Your task to perform on an android device: open device folders in google photos Image 0: 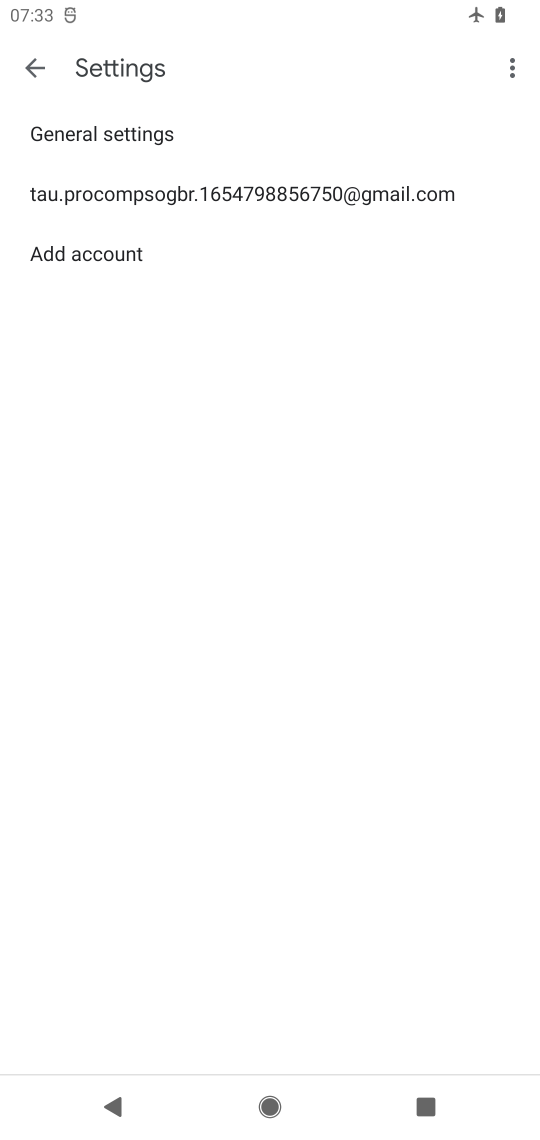
Step 0: press home button
Your task to perform on an android device: open device folders in google photos Image 1: 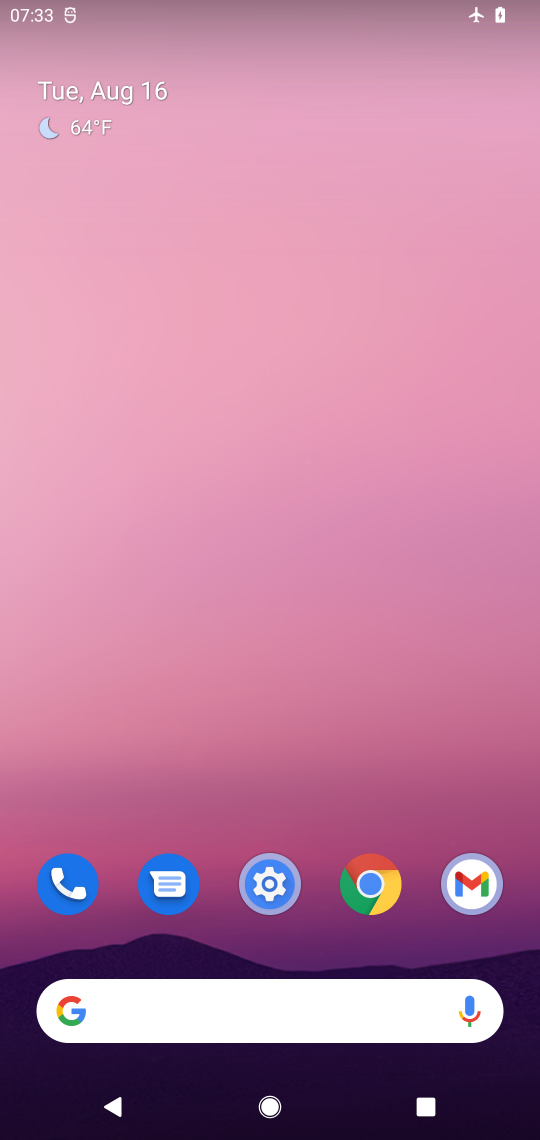
Step 1: drag from (314, 790) to (375, 29)
Your task to perform on an android device: open device folders in google photos Image 2: 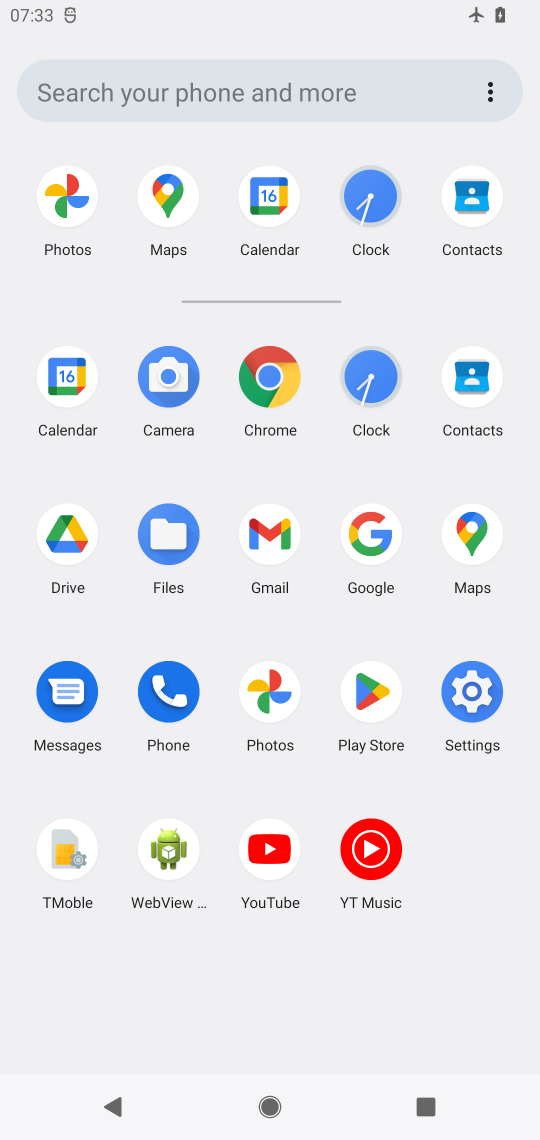
Step 2: click (266, 681)
Your task to perform on an android device: open device folders in google photos Image 3: 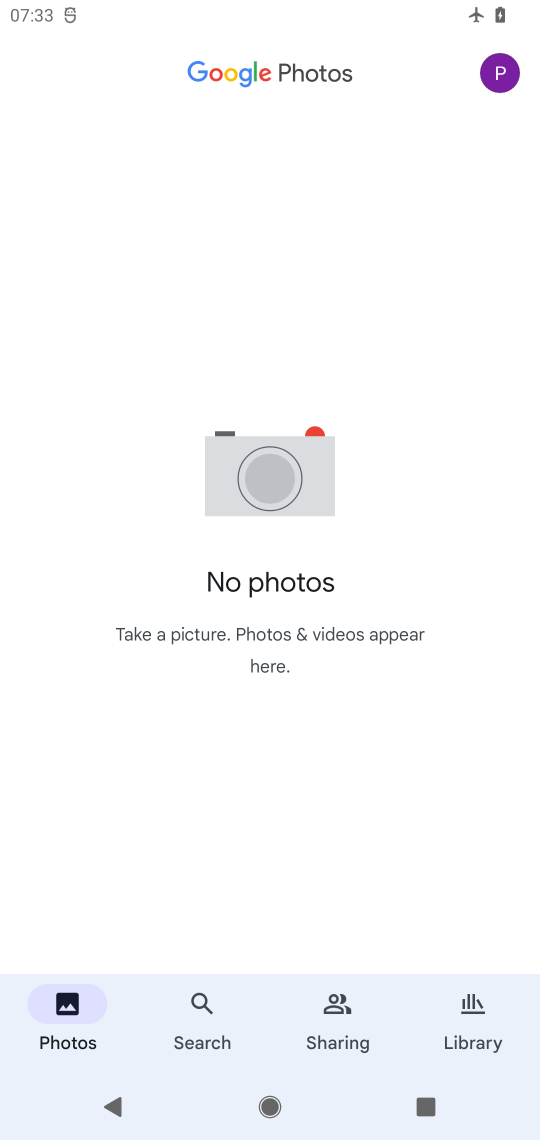
Step 3: click (196, 986)
Your task to perform on an android device: open device folders in google photos Image 4: 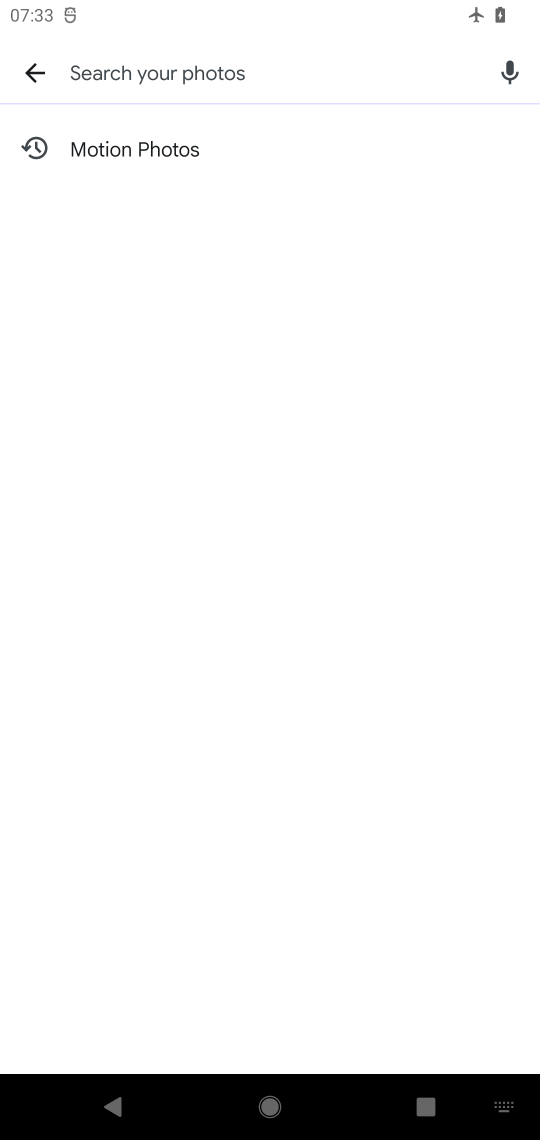
Step 4: type "device folders"
Your task to perform on an android device: open device folders in google photos Image 5: 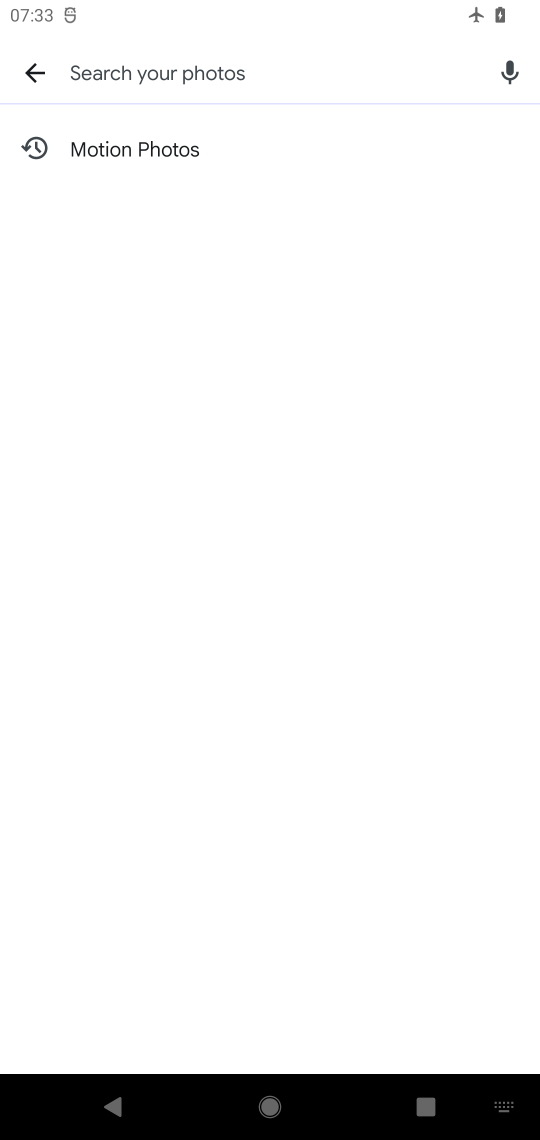
Step 5: click (180, 76)
Your task to perform on an android device: open device folders in google photos Image 6: 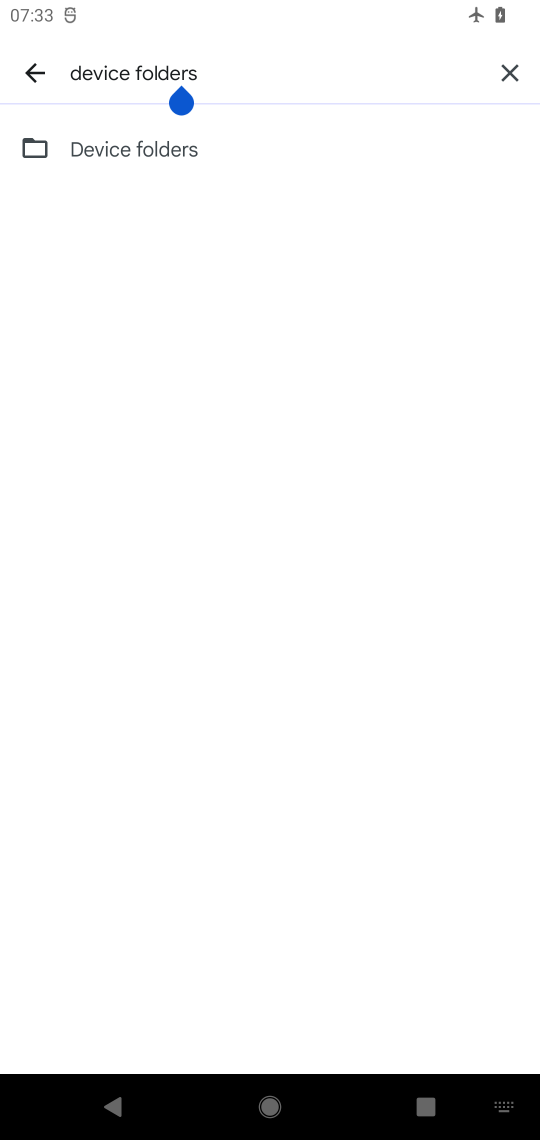
Step 6: click (146, 151)
Your task to perform on an android device: open device folders in google photos Image 7: 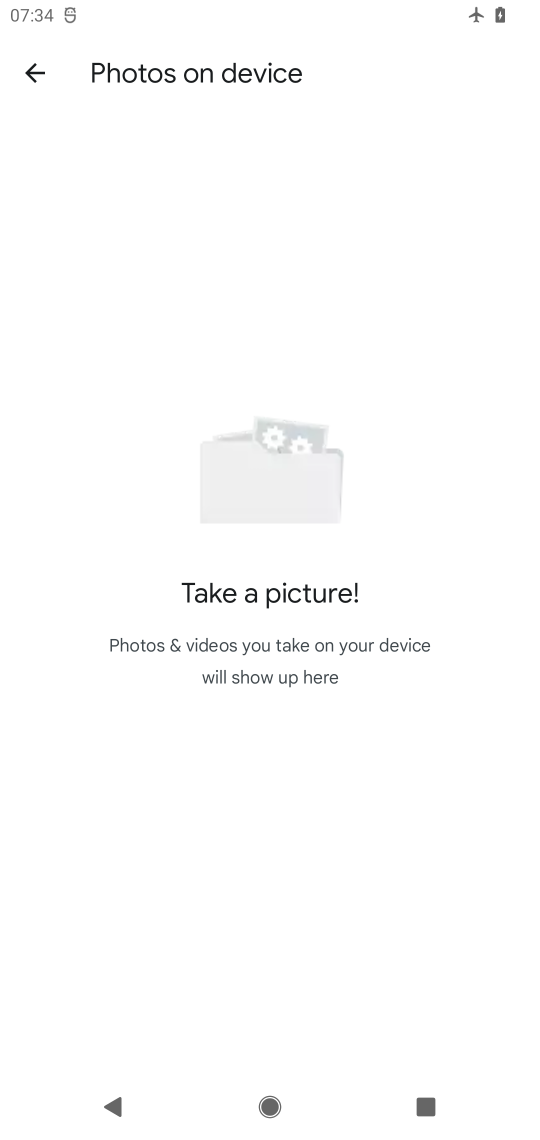
Step 7: task complete